Your task to perform on an android device: Go to internet settings Image 0: 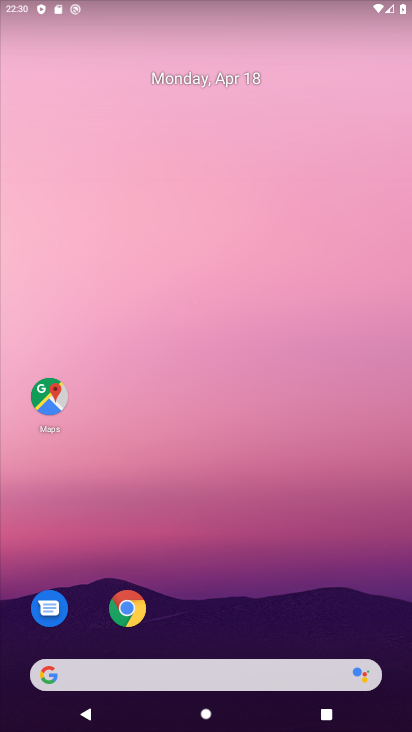
Step 0: drag from (308, 562) to (319, 181)
Your task to perform on an android device: Go to internet settings Image 1: 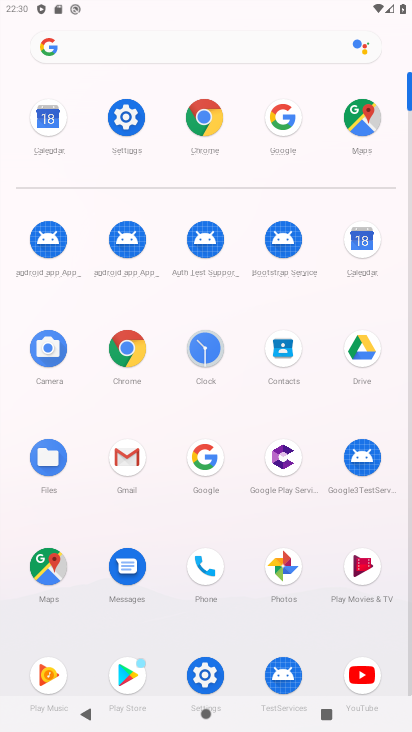
Step 1: click (126, 118)
Your task to perform on an android device: Go to internet settings Image 2: 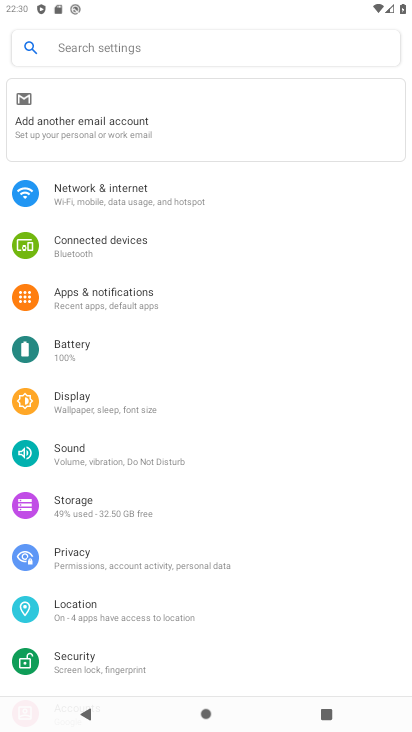
Step 2: click (134, 194)
Your task to perform on an android device: Go to internet settings Image 3: 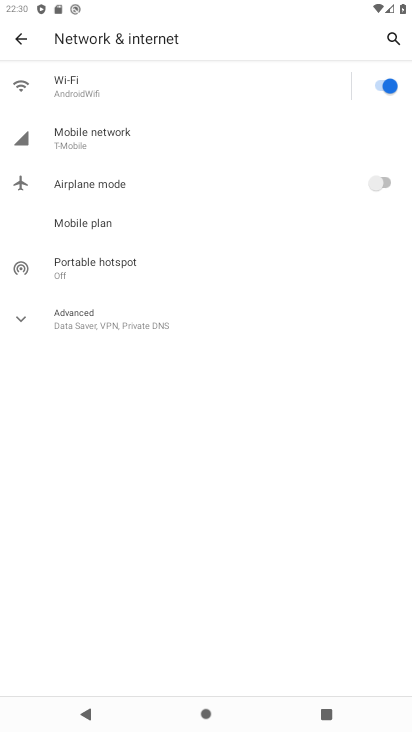
Step 3: click (130, 93)
Your task to perform on an android device: Go to internet settings Image 4: 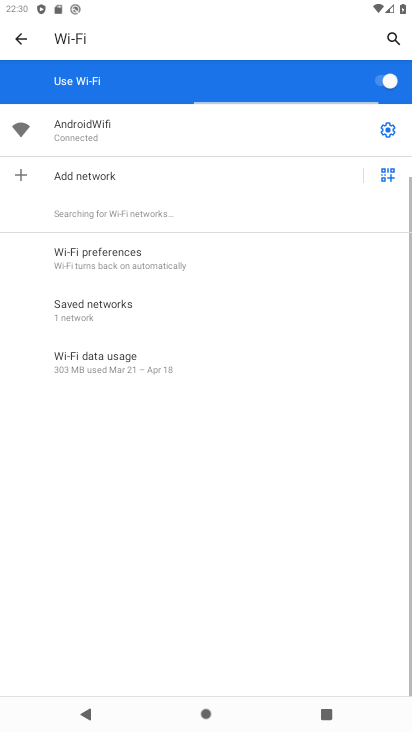
Step 4: click (384, 130)
Your task to perform on an android device: Go to internet settings Image 5: 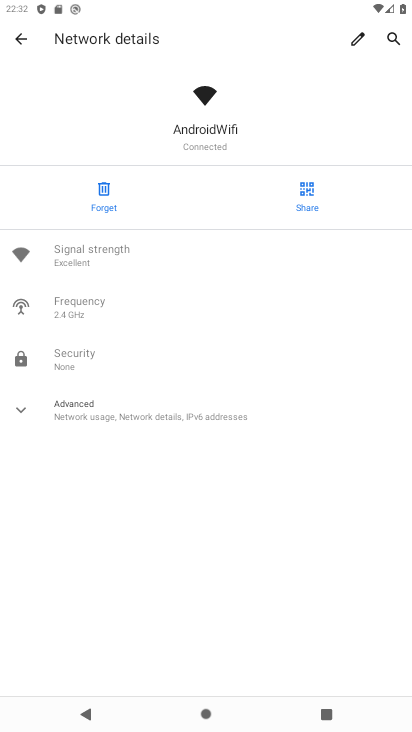
Step 5: task complete